Your task to perform on an android device: check google app version Image 0: 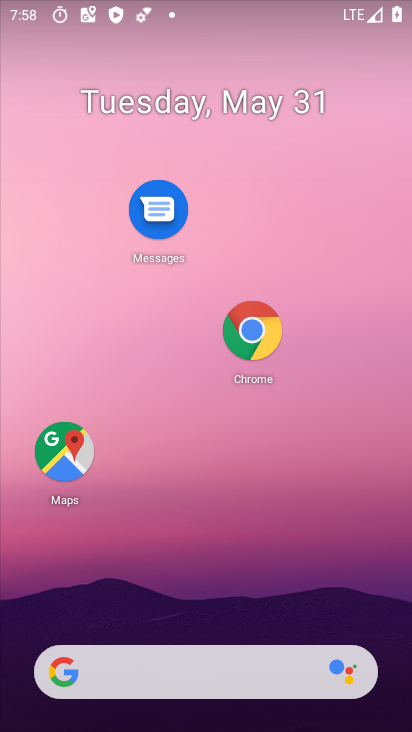
Step 0: click (123, 672)
Your task to perform on an android device: check google app version Image 1: 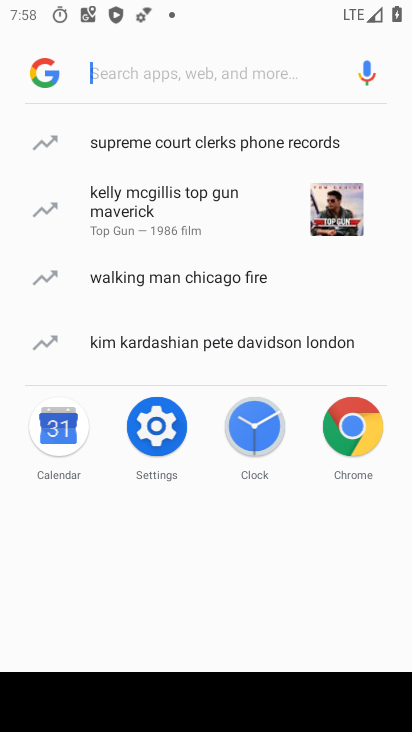
Step 1: click (48, 74)
Your task to perform on an android device: check google app version Image 2: 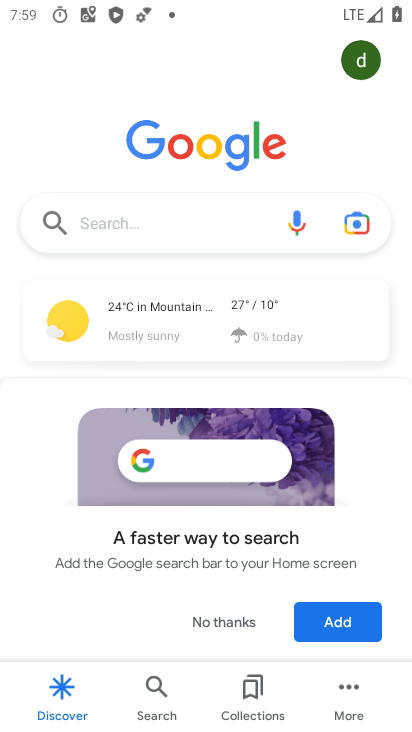
Step 2: click (337, 714)
Your task to perform on an android device: check google app version Image 3: 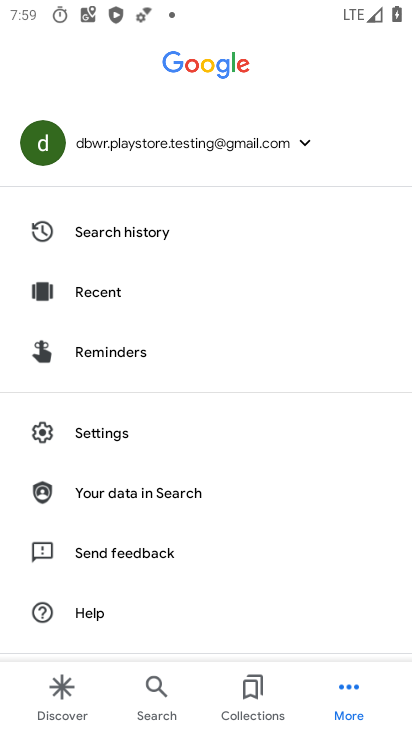
Step 3: click (102, 434)
Your task to perform on an android device: check google app version Image 4: 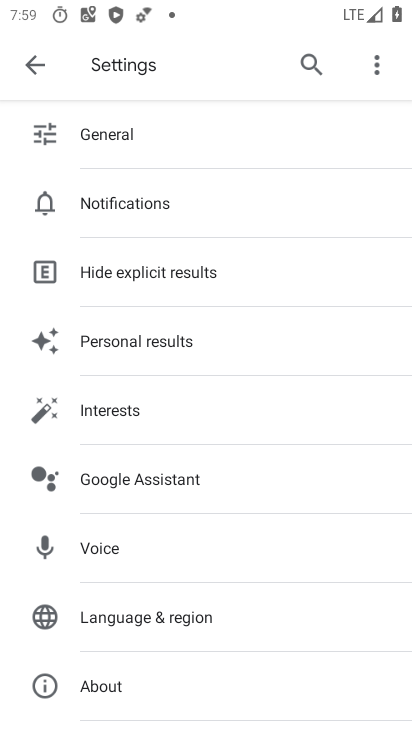
Step 4: click (102, 692)
Your task to perform on an android device: check google app version Image 5: 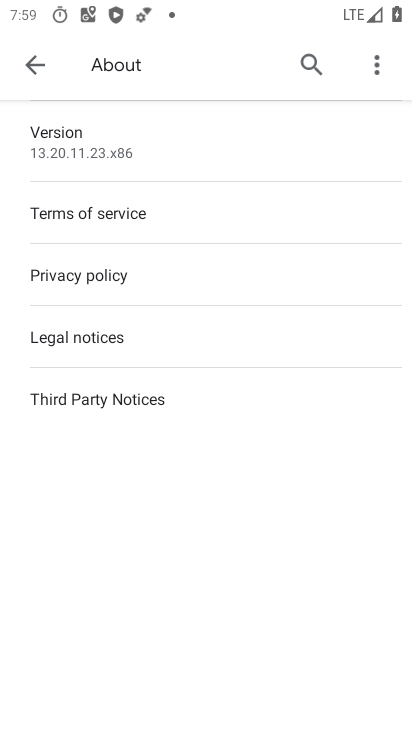
Step 5: task complete